Your task to perform on an android device: Go to internet settings Image 0: 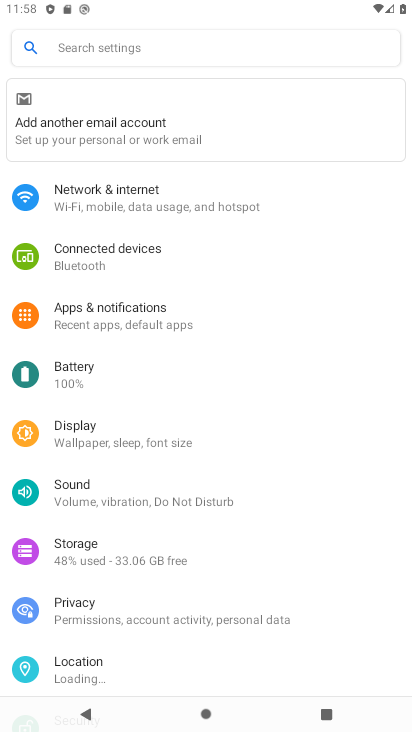
Step 0: click (200, 199)
Your task to perform on an android device: Go to internet settings Image 1: 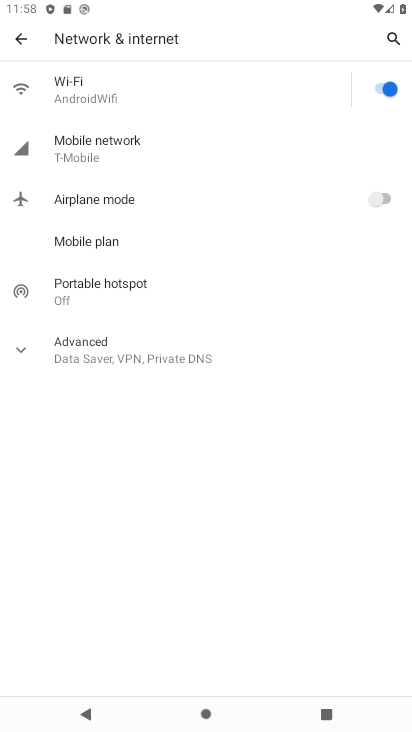
Step 1: task complete